Your task to perform on an android device: Go to wifi settings Image 0: 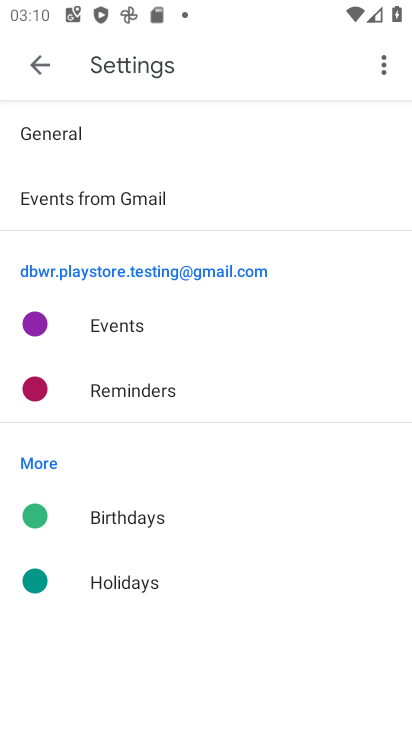
Step 0: press home button
Your task to perform on an android device: Go to wifi settings Image 1: 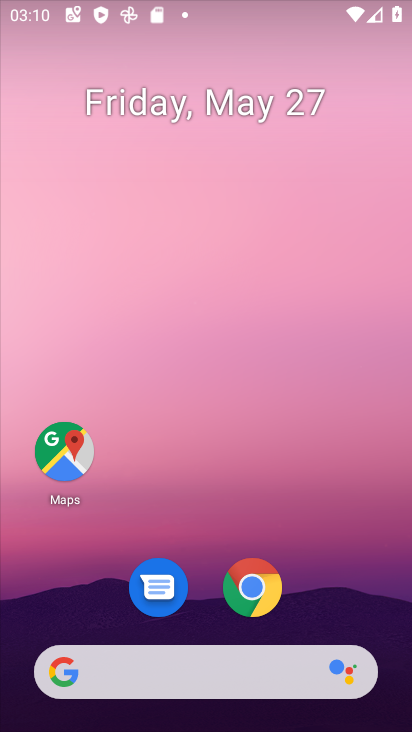
Step 1: drag from (304, 486) to (263, 73)
Your task to perform on an android device: Go to wifi settings Image 2: 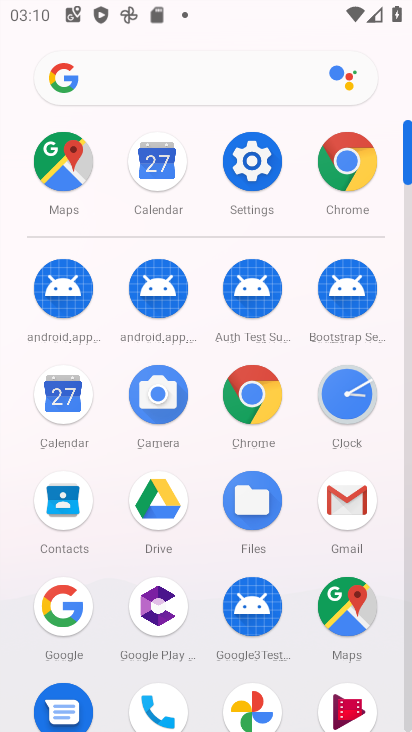
Step 2: click (242, 157)
Your task to perform on an android device: Go to wifi settings Image 3: 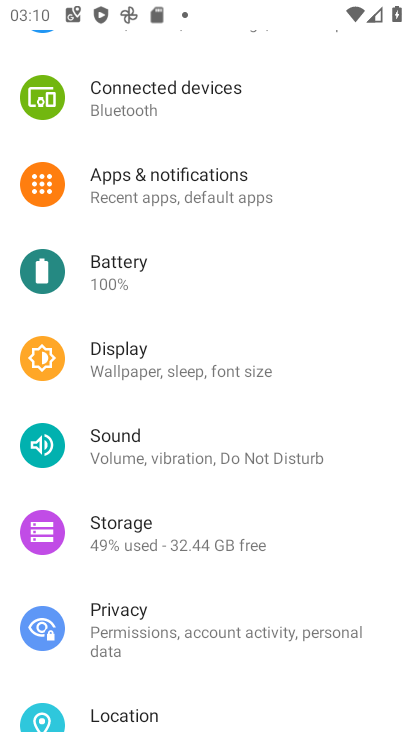
Step 3: drag from (317, 110) to (296, 447)
Your task to perform on an android device: Go to wifi settings Image 4: 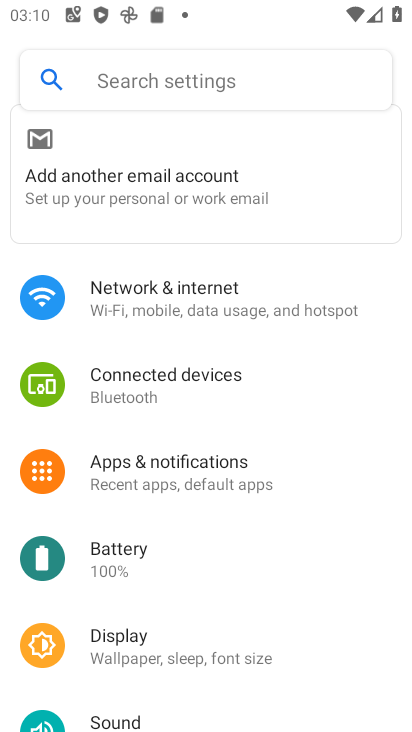
Step 4: click (177, 297)
Your task to perform on an android device: Go to wifi settings Image 5: 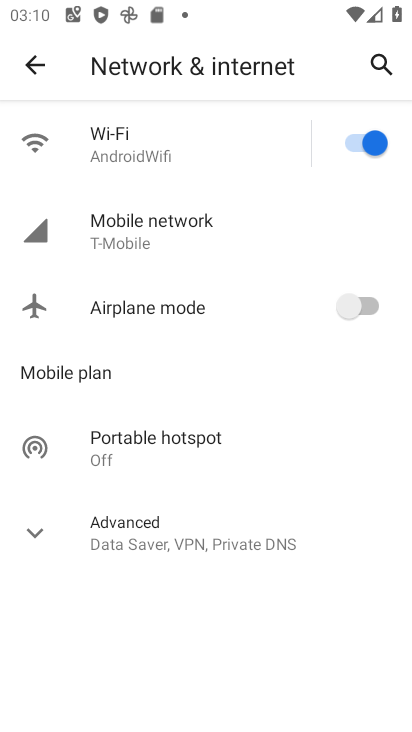
Step 5: click (118, 164)
Your task to perform on an android device: Go to wifi settings Image 6: 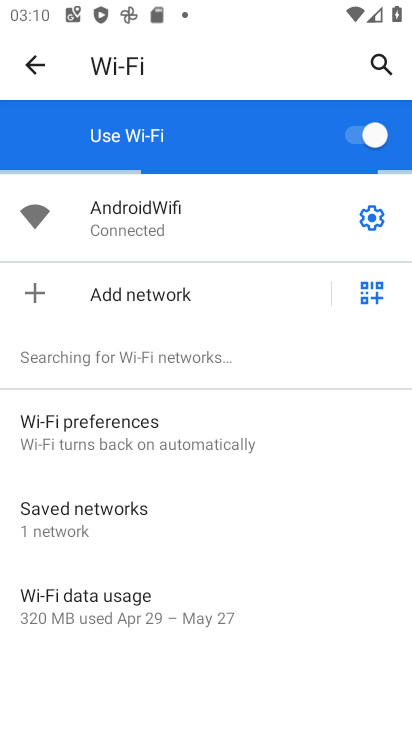
Step 6: task complete